Your task to perform on an android device: Open eBay Image 0: 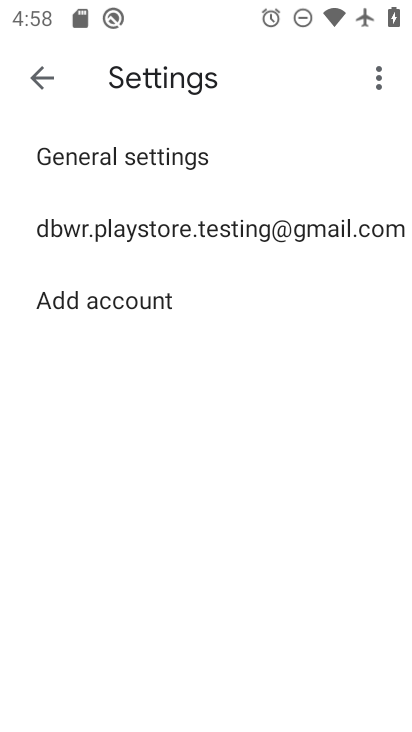
Step 0: press home button
Your task to perform on an android device: Open eBay Image 1: 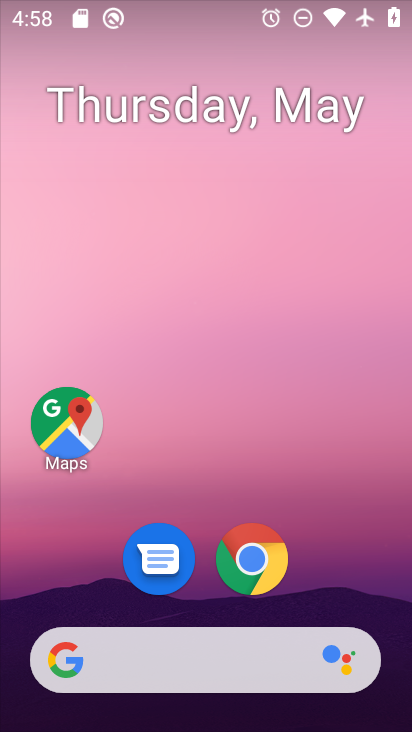
Step 1: click (264, 559)
Your task to perform on an android device: Open eBay Image 2: 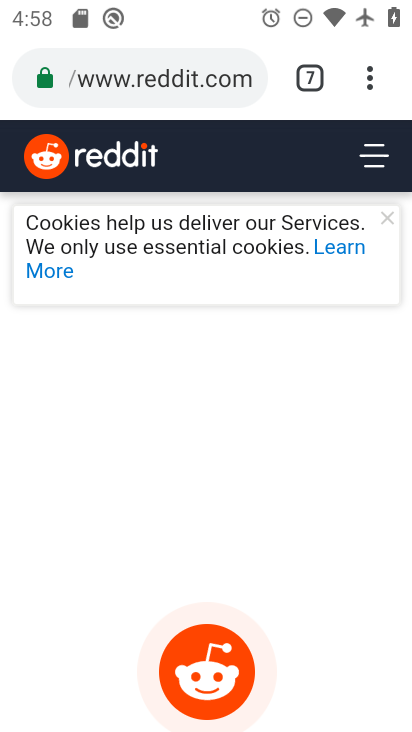
Step 2: click (309, 74)
Your task to perform on an android device: Open eBay Image 3: 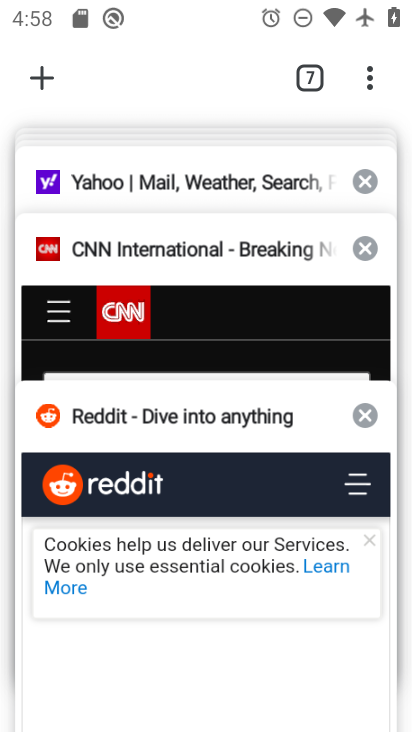
Step 3: click (40, 70)
Your task to perform on an android device: Open eBay Image 4: 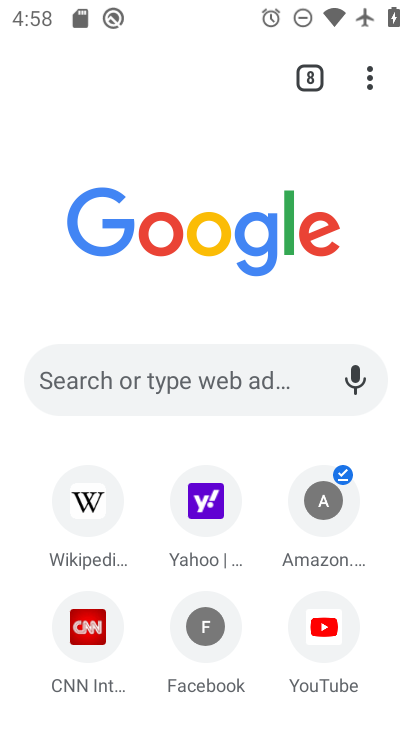
Step 4: click (189, 374)
Your task to perform on an android device: Open eBay Image 5: 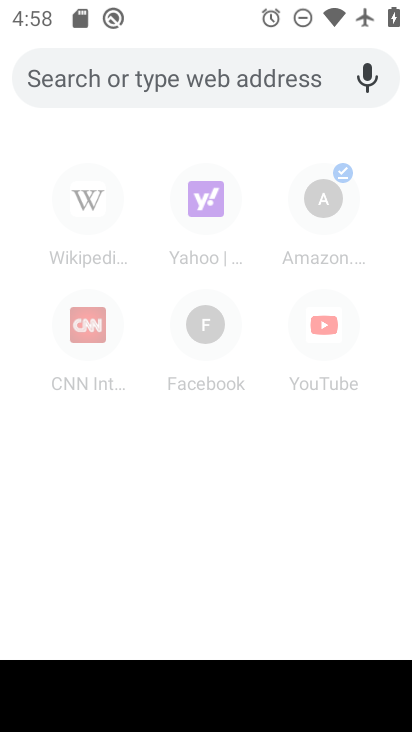
Step 5: type "eBay.com"
Your task to perform on an android device: Open eBay Image 6: 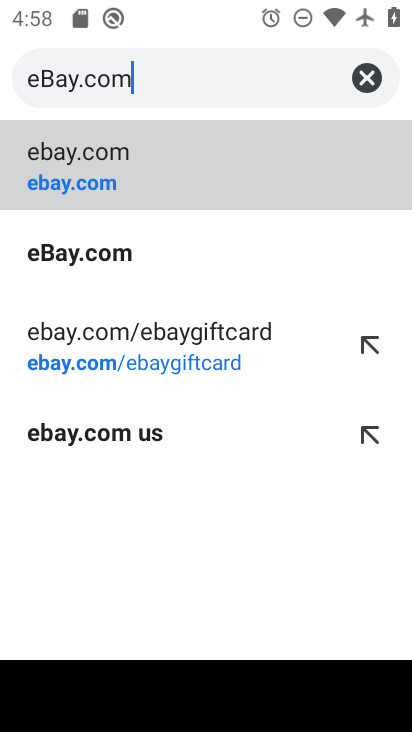
Step 6: click (139, 176)
Your task to perform on an android device: Open eBay Image 7: 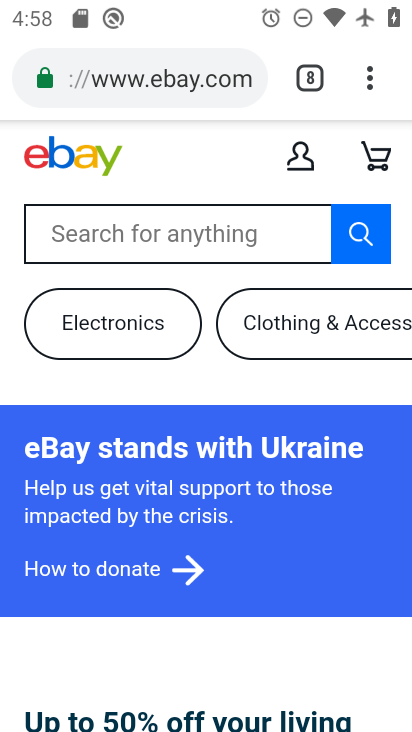
Step 7: task complete